Your task to perform on an android device: turn smart compose on in the gmail app Image 0: 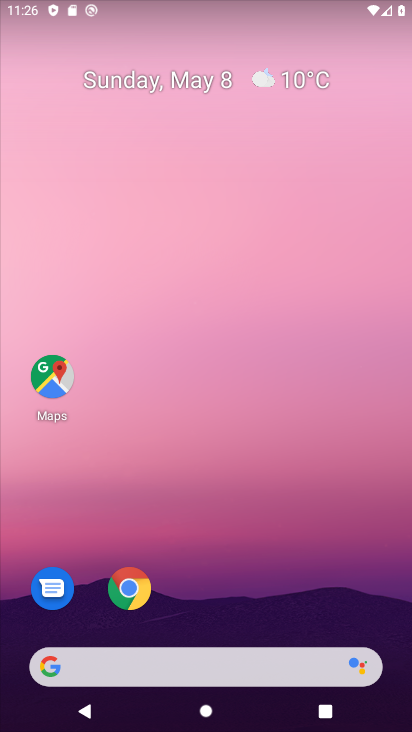
Step 0: drag from (194, 612) to (307, 57)
Your task to perform on an android device: turn smart compose on in the gmail app Image 1: 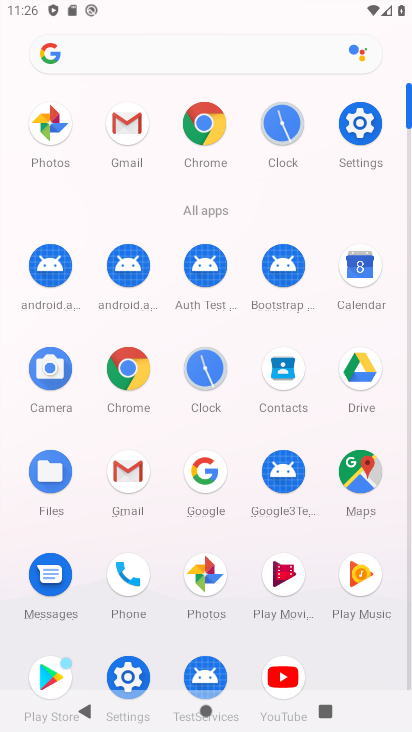
Step 1: click (128, 468)
Your task to perform on an android device: turn smart compose on in the gmail app Image 2: 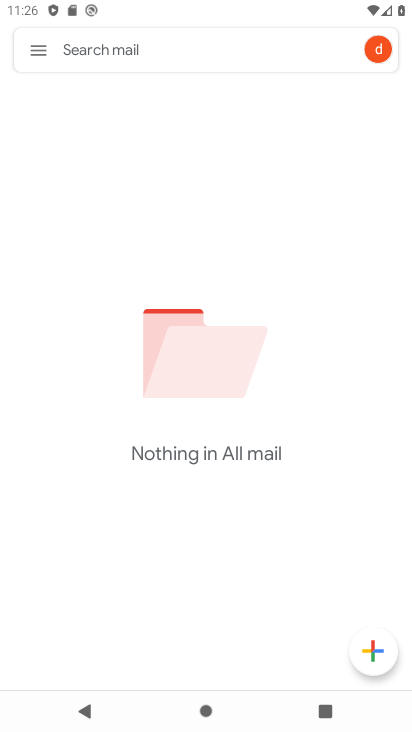
Step 2: click (33, 54)
Your task to perform on an android device: turn smart compose on in the gmail app Image 3: 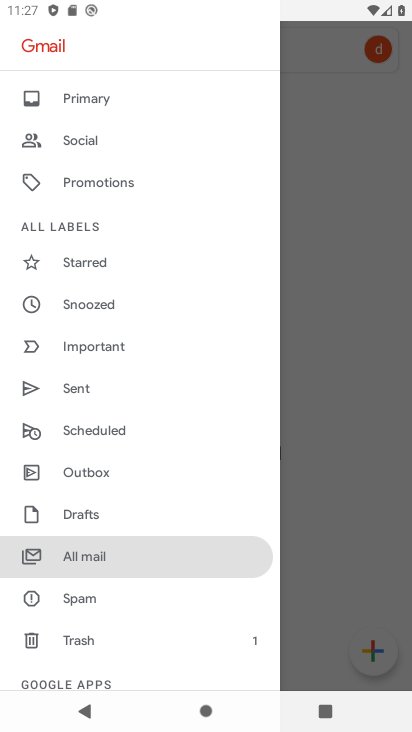
Step 3: drag from (114, 649) to (209, 232)
Your task to perform on an android device: turn smart compose on in the gmail app Image 4: 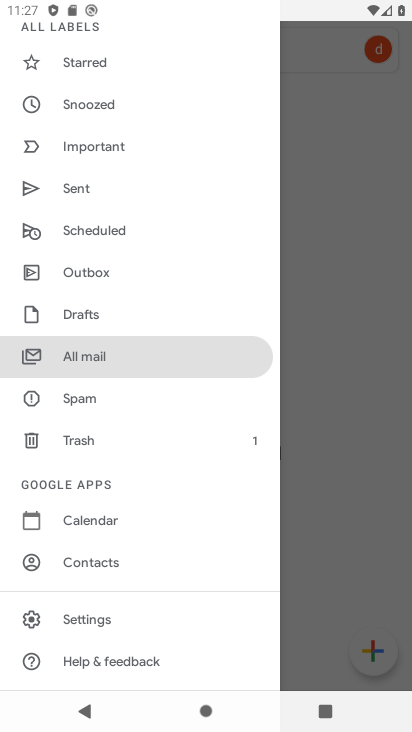
Step 4: click (67, 622)
Your task to perform on an android device: turn smart compose on in the gmail app Image 5: 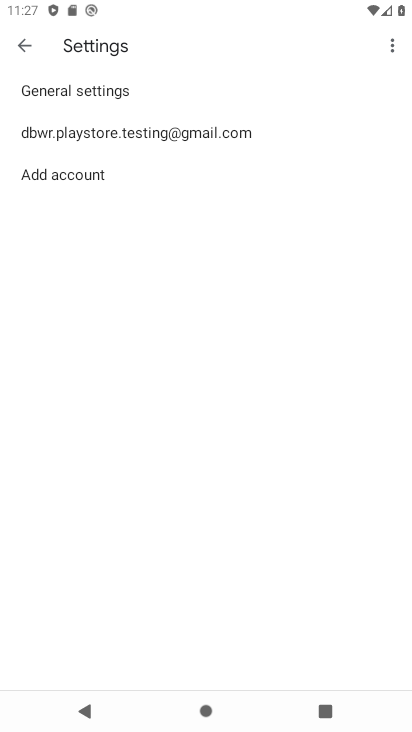
Step 5: click (143, 129)
Your task to perform on an android device: turn smart compose on in the gmail app Image 6: 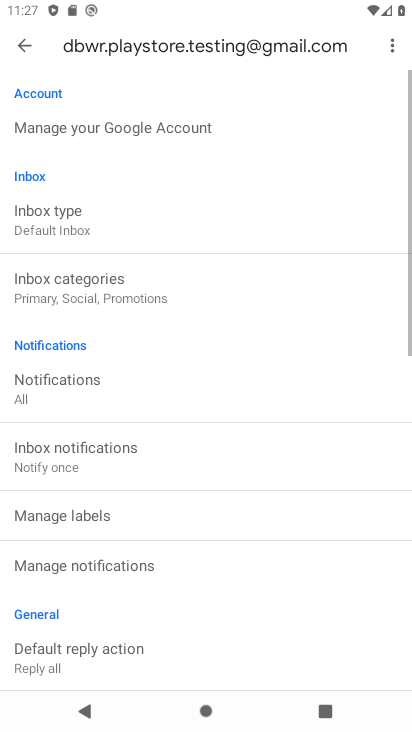
Step 6: task complete